Your task to perform on an android device: Open Google Chrome and open the bookmarks view Image 0: 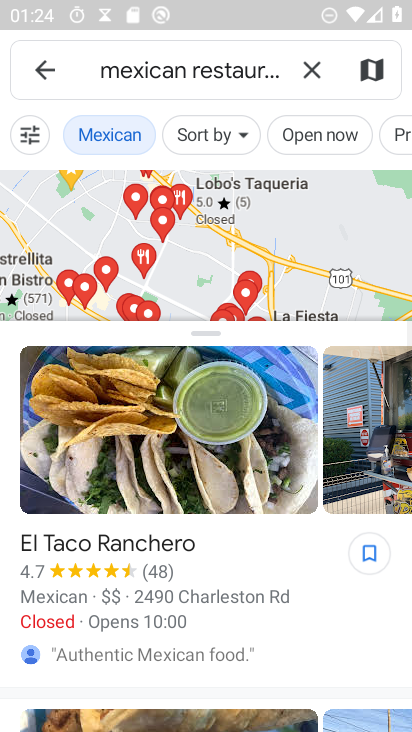
Step 0: press home button
Your task to perform on an android device: Open Google Chrome and open the bookmarks view Image 1: 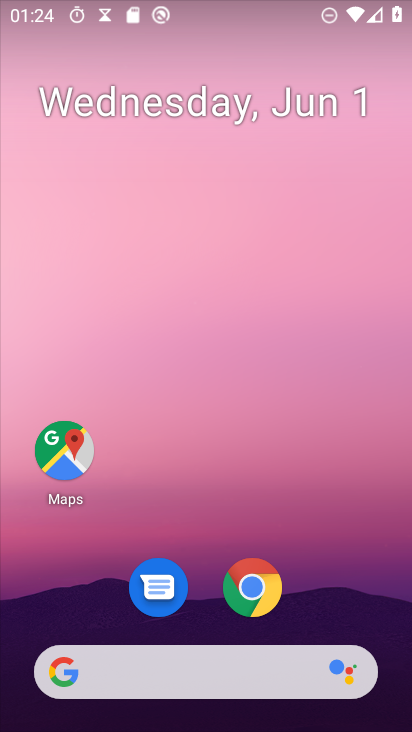
Step 1: click (250, 584)
Your task to perform on an android device: Open Google Chrome and open the bookmarks view Image 2: 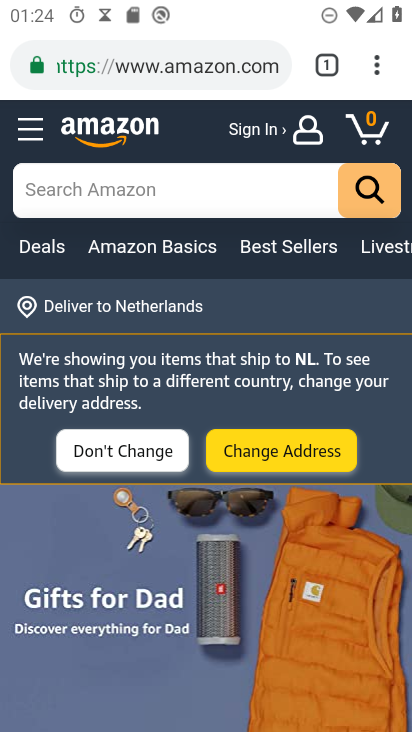
Step 2: click (372, 54)
Your task to perform on an android device: Open Google Chrome and open the bookmarks view Image 3: 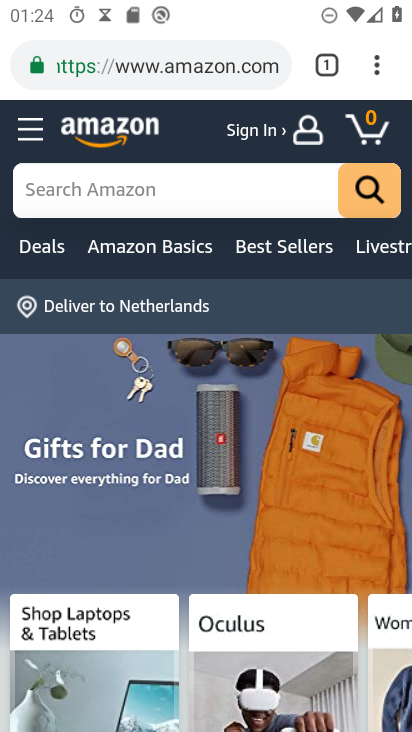
Step 3: click (375, 57)
Your task to perform on an android device: Open Google Chrome and open the bookmarks view Image 4: 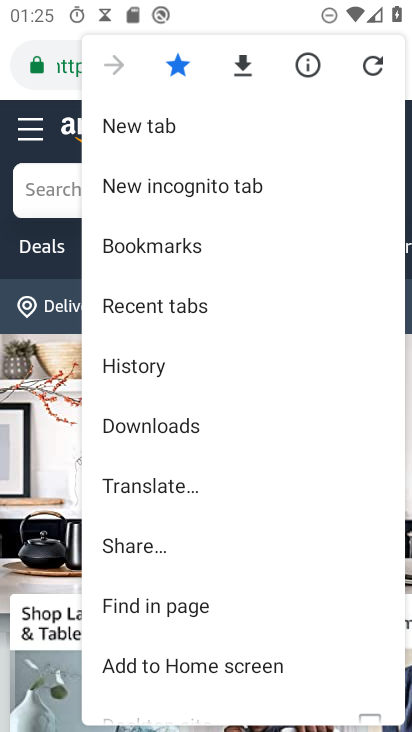
Step 4: click (161, 252)
Your task to perform on an android device: Open Google Chrome and open the bookmarks view Image 5: 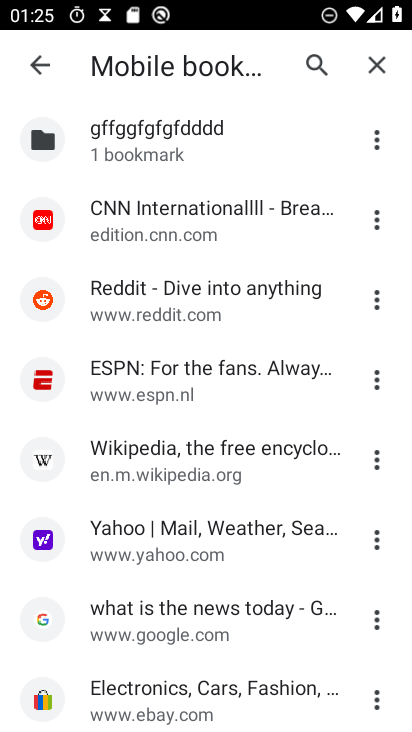
Step 5: task complete